Your task to perform on an android device: Go to notification settings Image 0: 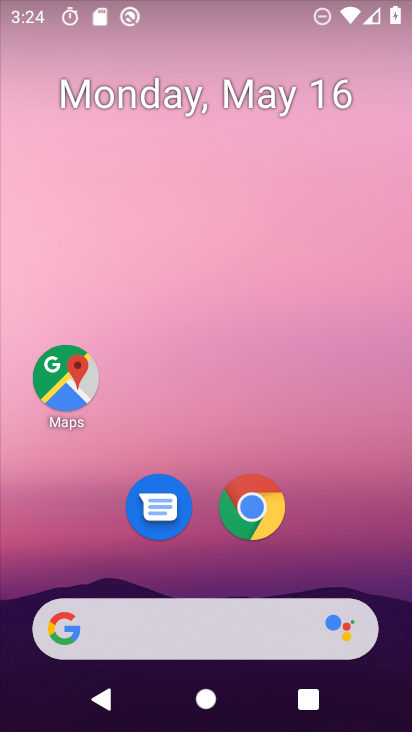
Step 0: drag from (345, 533) to (224, 84)
Your task to perform on an android device: Go to notification settings Image 1: 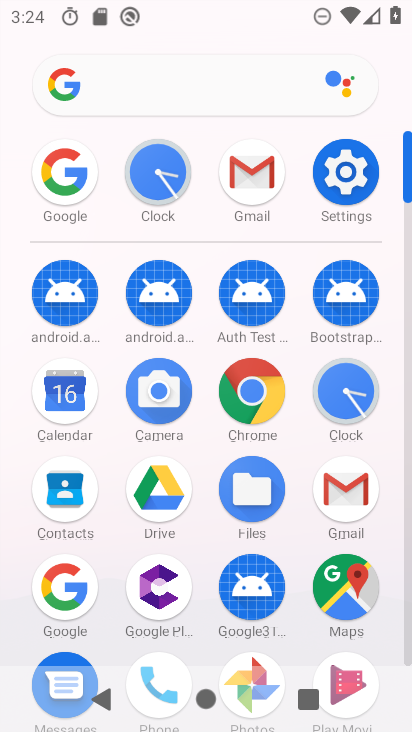
Step 1: click (345, 171)
Your task to perform on an android device: Go to notification settings Image 2: 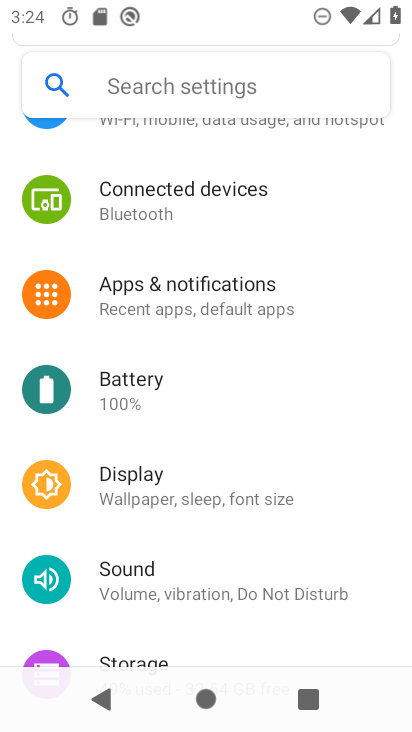
Step 2: click (211, 293)
Your task to perform on an android device: Go to notification settings Image 3: 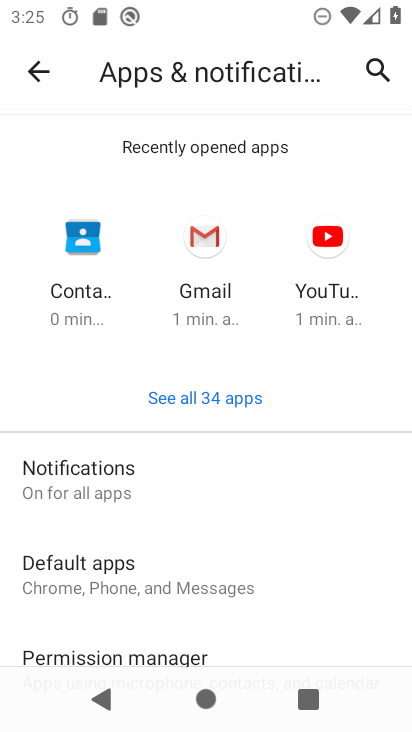
Step 3: click (55, 477)
Your task to perform on an android device: Go to notification settings Image 4: 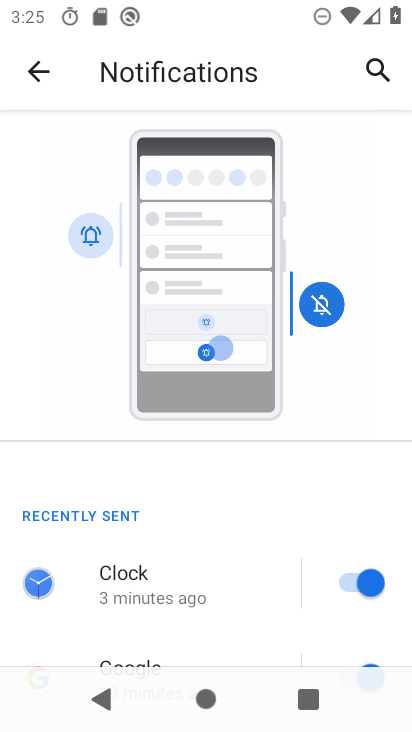
Step 4: drag from (139, 599) to (94, 129)
Your task to perform on an android device: Go to notification settings Image 5: 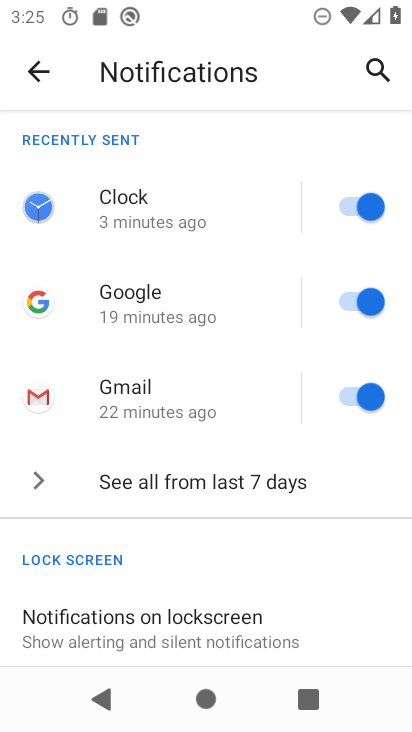
Step 5: drag from (157, 559) to (133, 131)
Your task to perform on an android device: Go to notification settings Image 6: 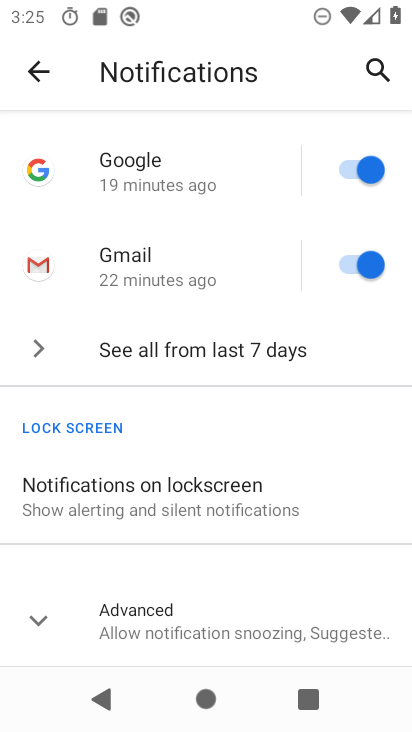
Step 6: click (167, 497)
Your task to perform on an android device: Go to notification settings Image 7: 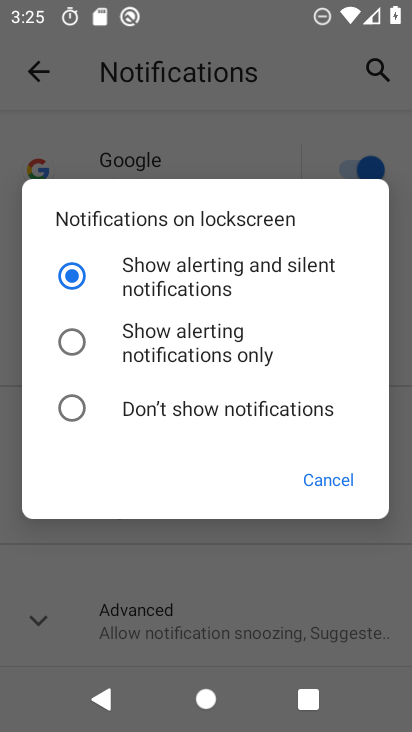
Step 7: task complete